Your task to perform on an android device: delete a single message in the gmail app Image 0: 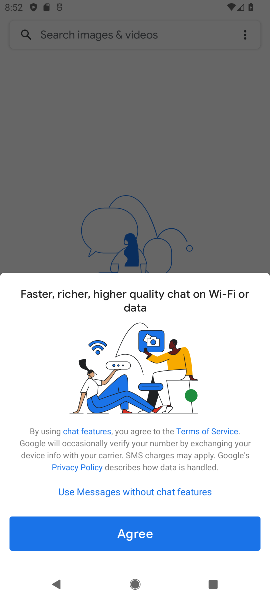
Step 0: press home button
Your task to perform on an android device: delete a single message in the gmail app Image 1: 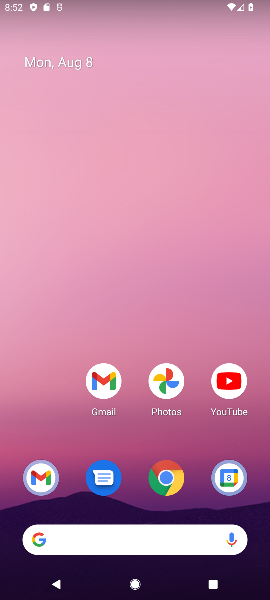
Step 1: click (105, 388)
Your task to perform on an android device: delete a single message in the gmail app Image 2: 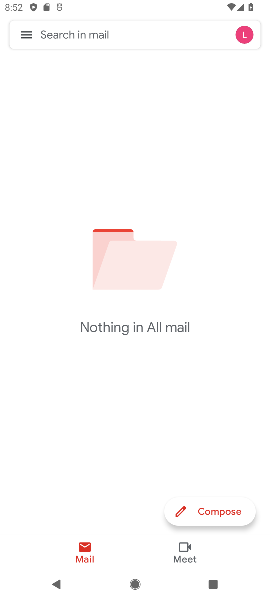
Step 2: task complete